Your task to perform on an android device: turn off data saver in the chrome app Image 0: 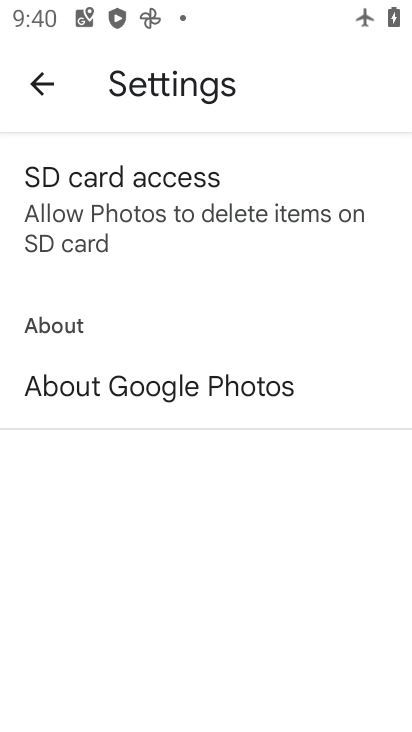
Step 0: press home button
Your task to perform on an android device: turn off data saver in the chrome app Image 1: 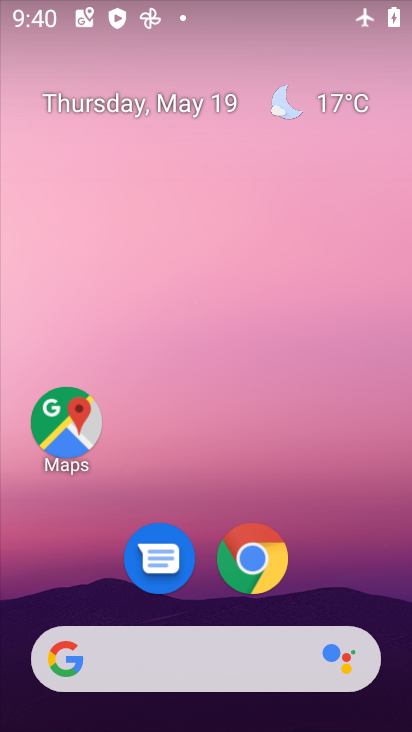
Step 1: click (255, 565)
Your task to perform on an android device: turn off data saver in the chrome app Image 2: 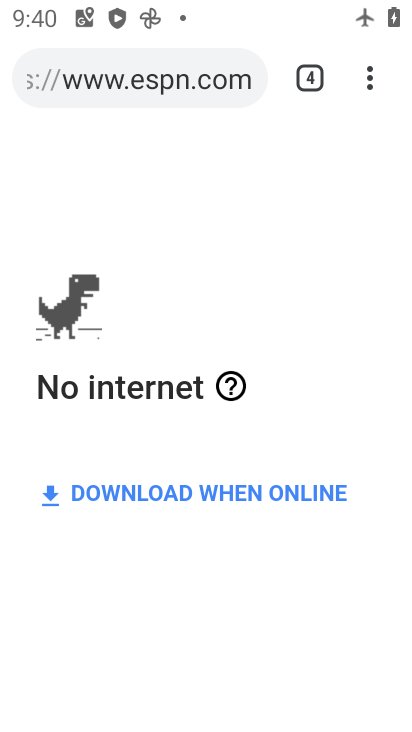
Step 2: click (370, 86)
Your task to perform on an android device: turn off data saver in the chrome app Image 3: 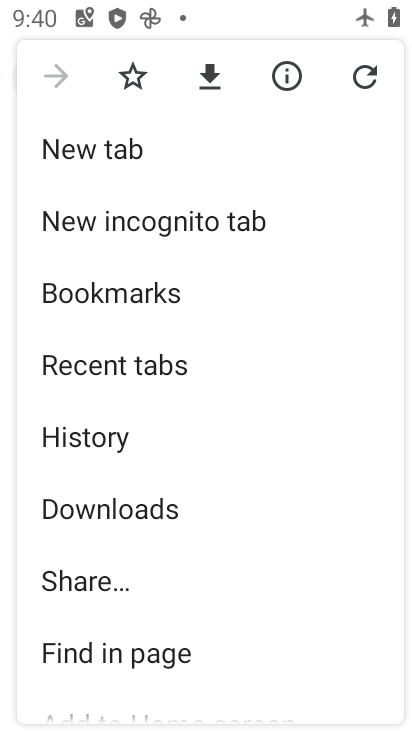
Step 3: drag from (121, 670) to (113, 296)
Your task to perform on an android device: turn off data saver in the chrome app Image 4: 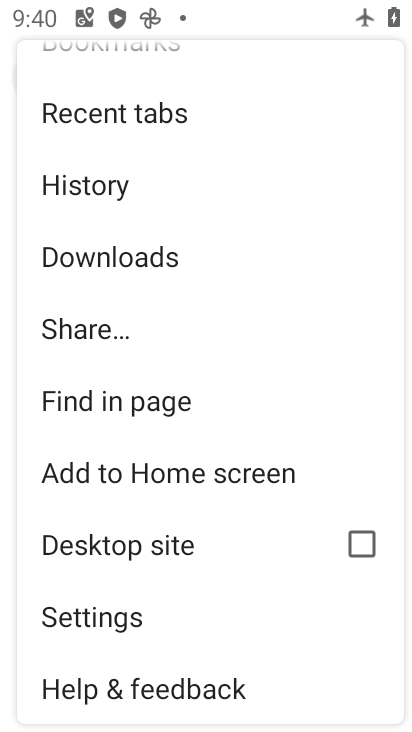
Step 4: click (105, 617)
Your task to perform on an android device: turn off data saver in the chrome app Image 5: 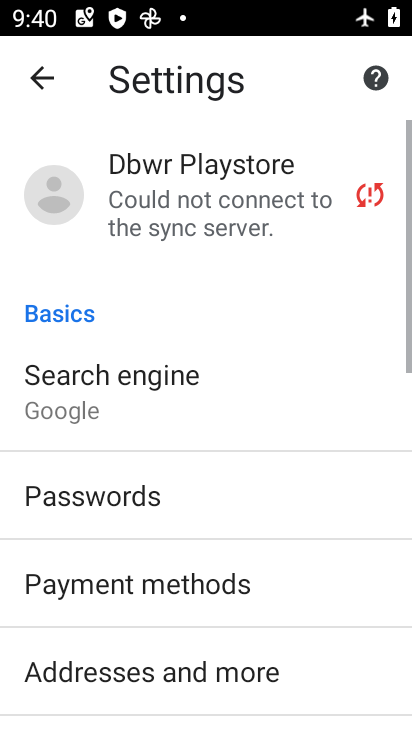
Step 5: drag from (144, 630) to (152, 246)
Your task to perform on an android device: turn off data saver in the chrome app Image 6: 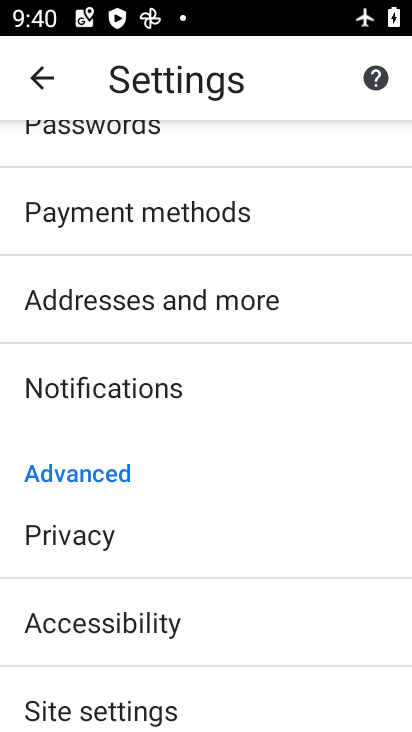
Step 6: drag from (144, 642) to (157, 246)
Your task to perform on an android device: turn off data saver in the chrome app Image 7: 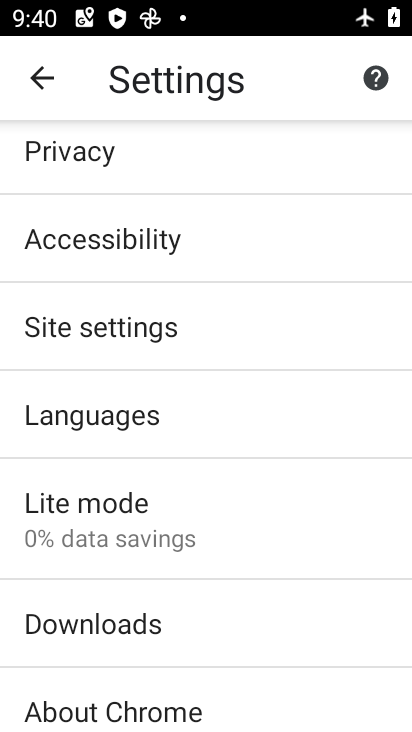
Step 7: click (117, 519)
Your task to perform on an android device: turn off data saver in the chrome app Image 8: 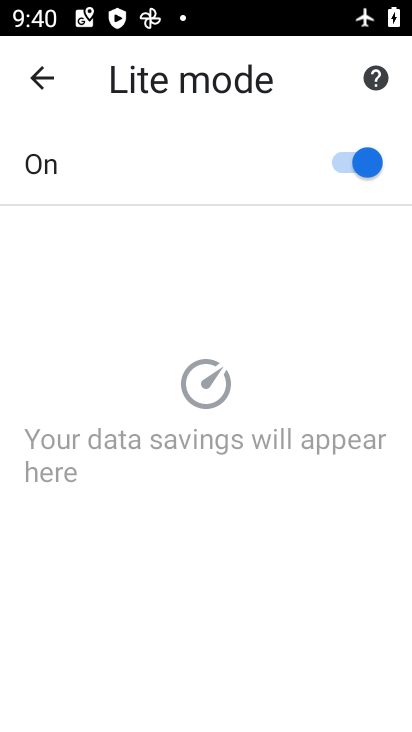
Step 8: click (345, 157)
Your task to perform on an android device: turn off data saver in the chrome app Image 9: 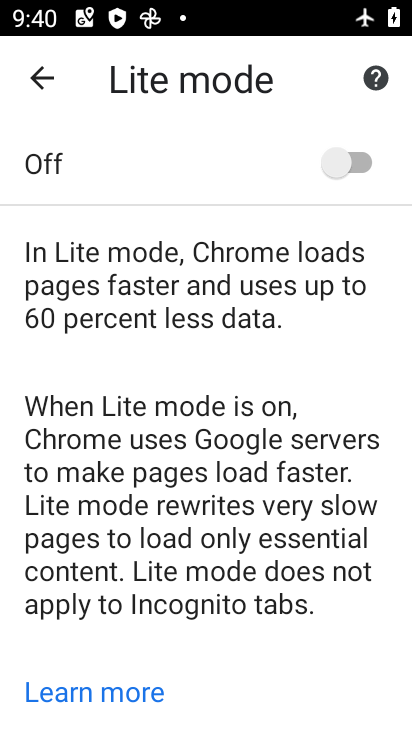
Step 9: task complete